Your task to perform on an android device: check battery use Image 0: 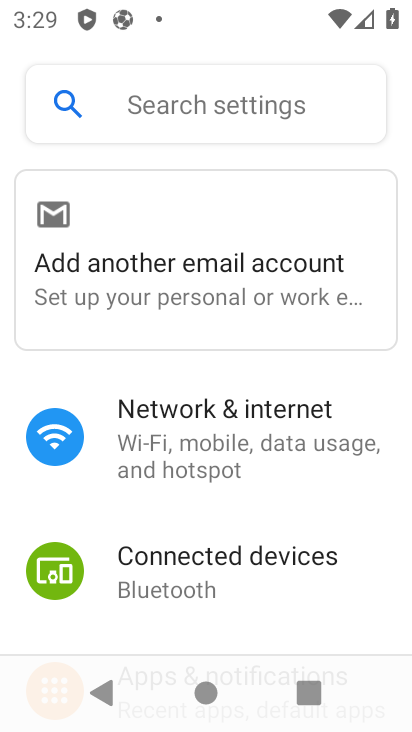
Step 0: press home button
Your task to perform on an android device: check battery use Image 1: 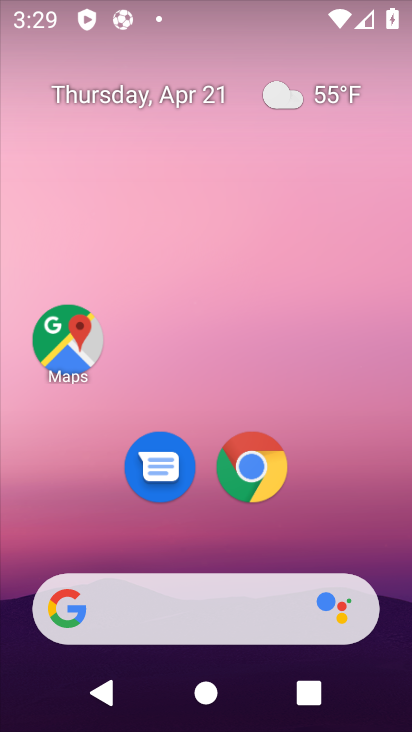
Step 1: drag from (280, 28) to (299, 571)
Your task to perform on an android device: check battery use Image 2: 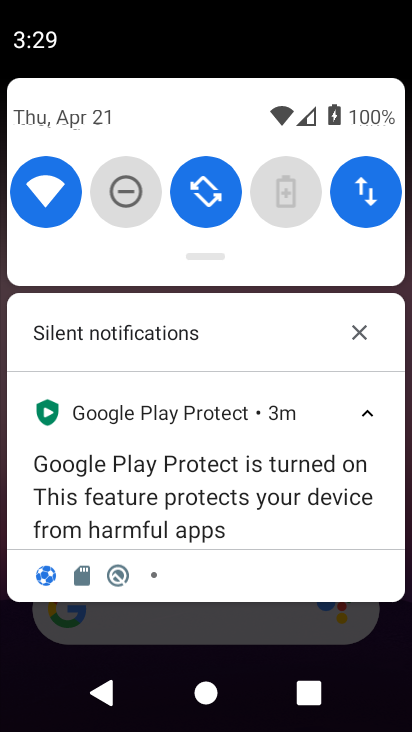
Step 2: click (334, 107)
Your task to perform on an android device: check battery use Image 3: 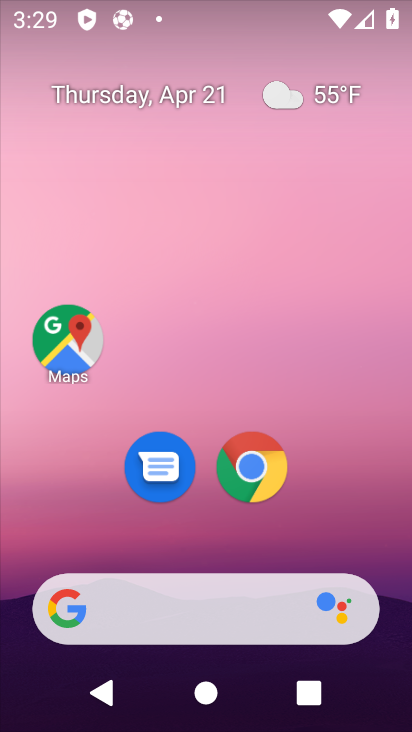
Step 3: drag from (192, 607) to (245, 421)
Your task to perform on an android device: check battery use Image 4: 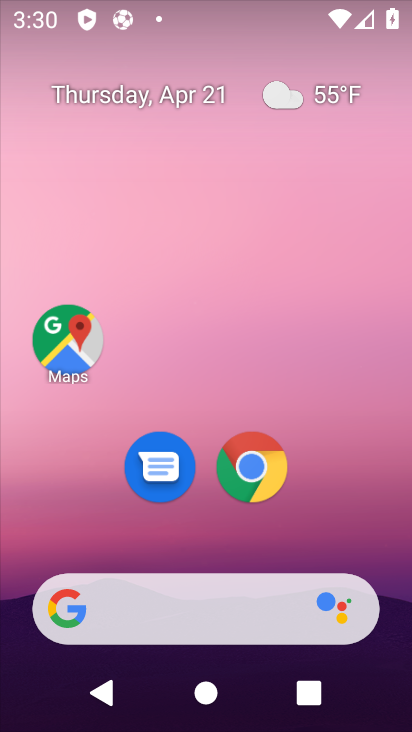
Step 4: drag from (260, 648) to (237, 171)
Your task to perform on an android device: check battery use Image 5: 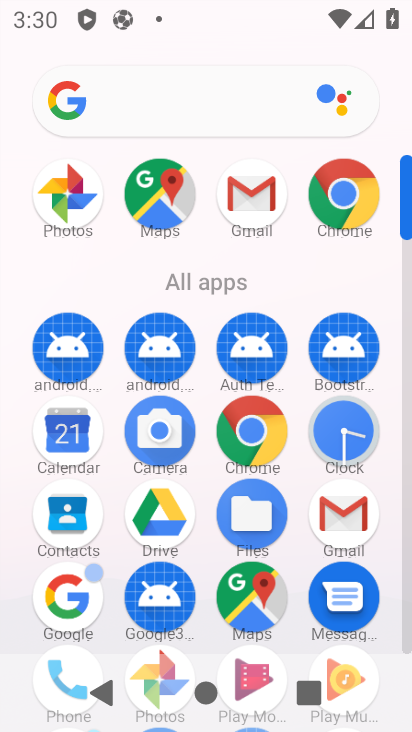
Step 5: drag from (294, 395) to (326, 168)
Your task to perform on an android device: check battery use Image 6: 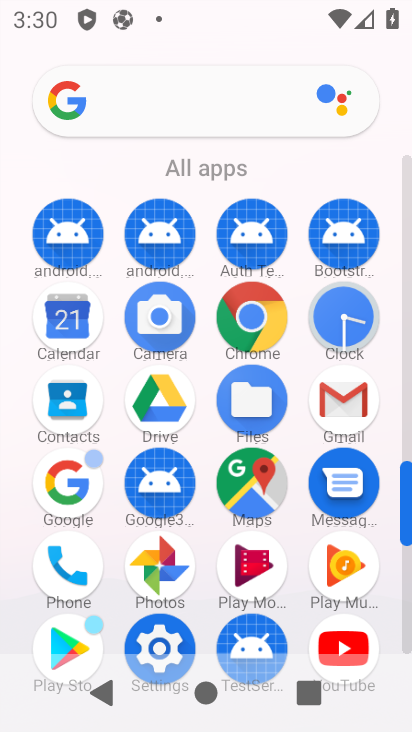
Step 6: click (158, 625)
Your task to perform on an android device: check battery use Image 7: 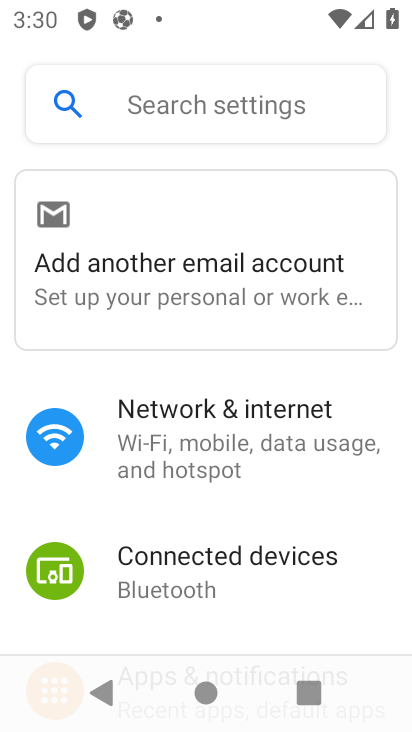
Step 7: drag from (241, 514) to (356, 210)
Your task to perform on an android device: check battery use Image 8: 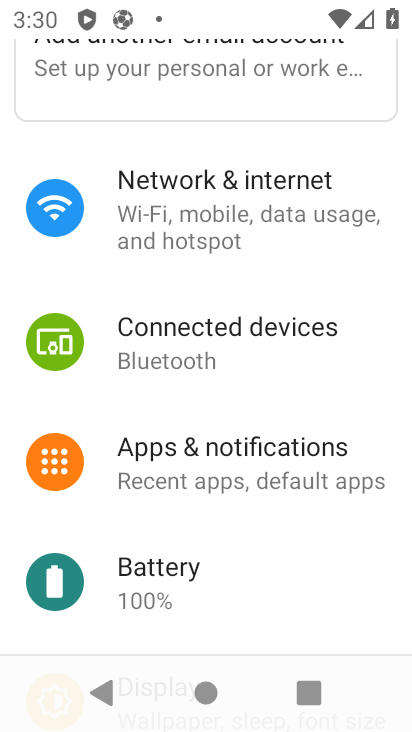
Step 8: click (172, 589)
Your task to perform on an android device: check battery use Image 9: 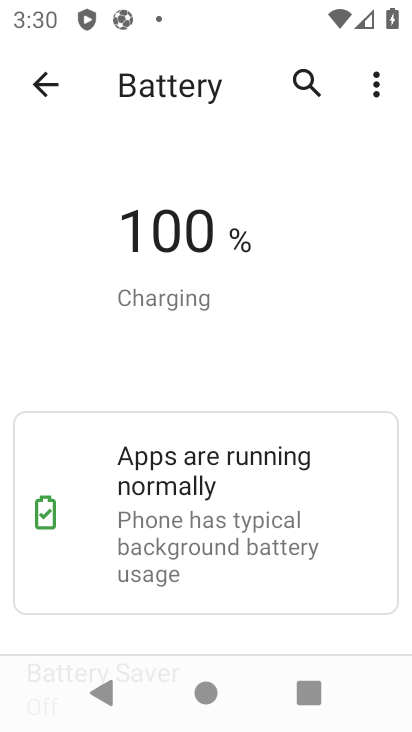
Step 9: drag from (134, 563) to (231, 249)
Your task to perform on an android device: check battery use Image 10: 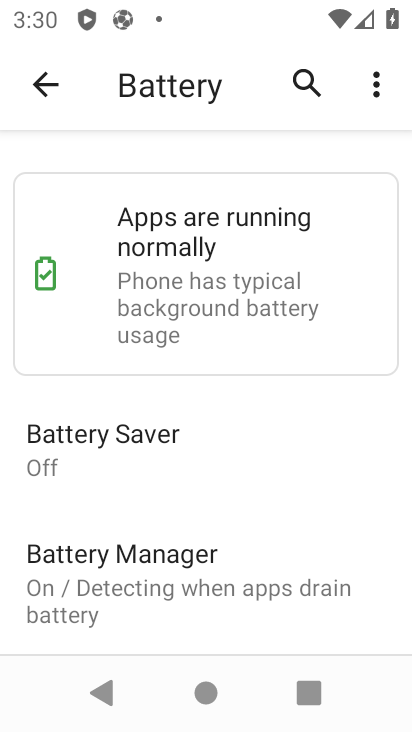
Step 10: drag from (147, 535) to (281, 233)
Your task to perform on an android device: check battery use Image 11: 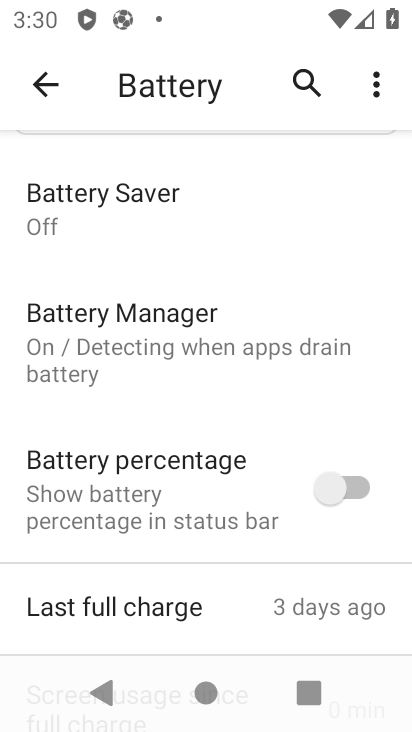
Step 11: drag from (53, 535) to (237, 245)
Your task to perform on an android device: check battery use Image 12: 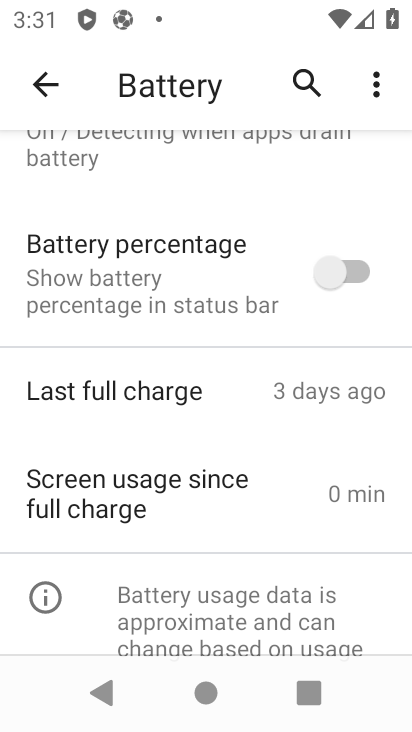
Step 12: drag from (178, 466) to (364, 128)
Your task to perform on an android device: check battery use Image 13: 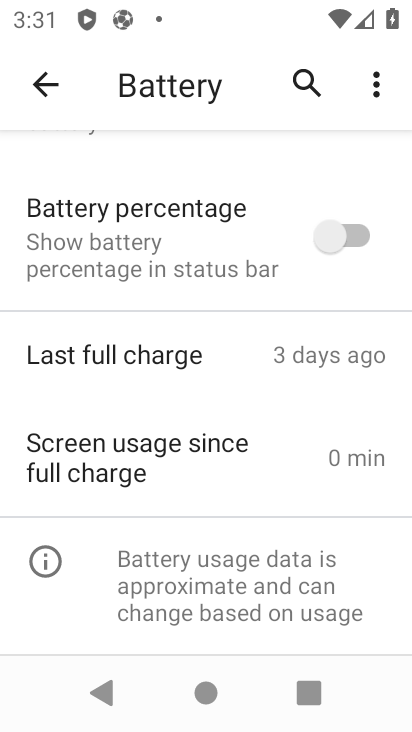
Step 13: drag from (165, 241) to (266, 568)
Your task to perform on an android device: check battery use Image 14: 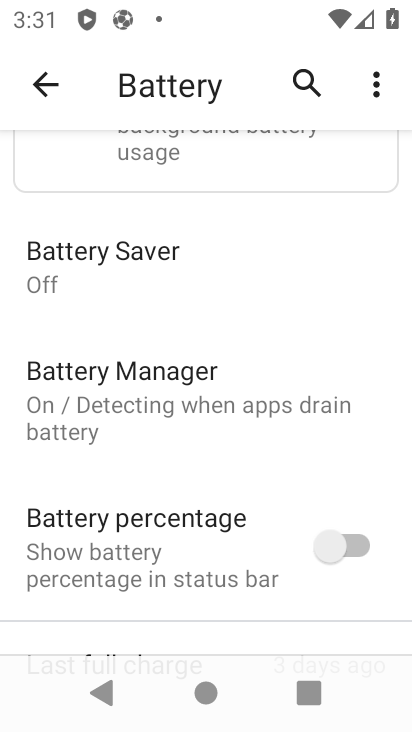
Step 14: click (129, 407)
Your task to perform on an android device: check battery use Image 15: 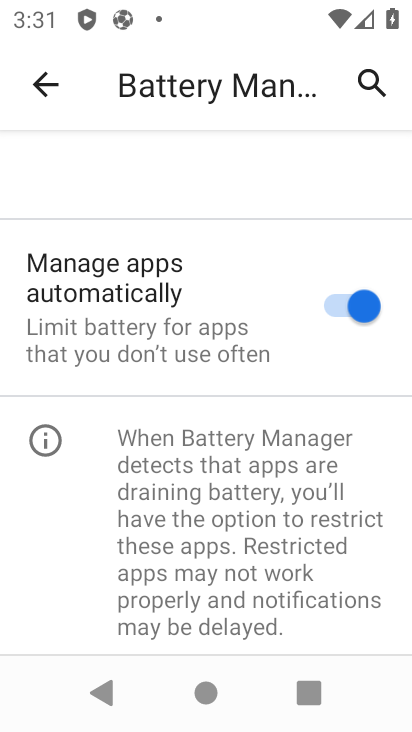
Step 15: task complete